Your task to perform on an android device: Search for pizza restaurants on Maps Image 0: 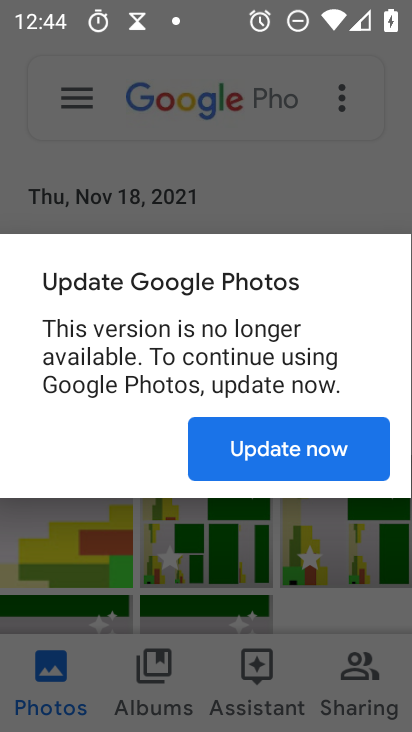
Step 0: press home button
Your task to perform on an android device: Search for pizza restaurants on Maps Image 1: 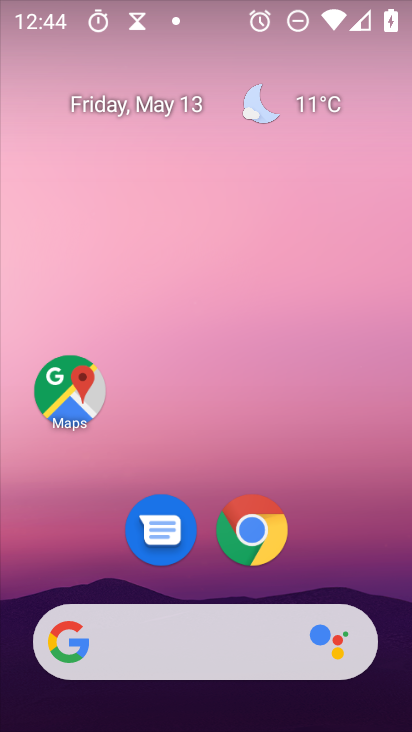
Step 1: click (81, 389)
Your task to perform on an android device: Search for pizza restaurants on Maps Image 2: 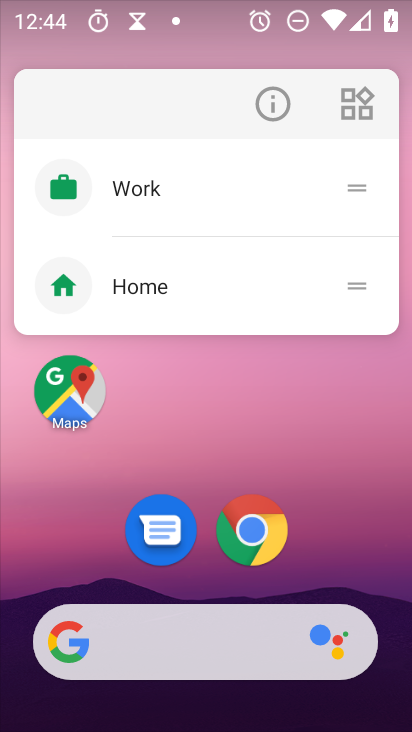
Step 2: click (70, 399)
Your task to perform on an android device: Search for pizza restaurants on Maps Image 3: 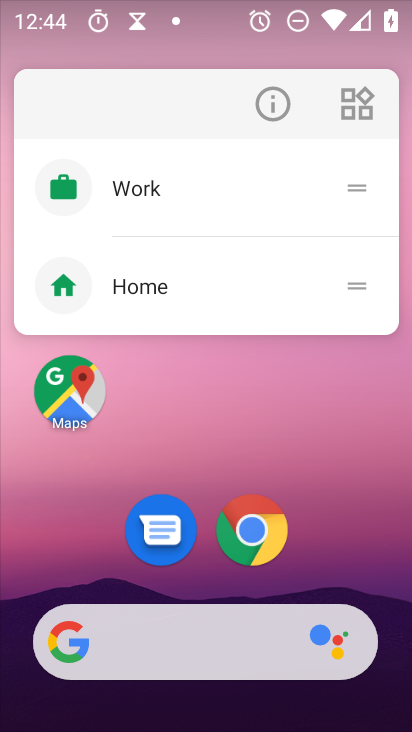
Step 3: click (64, 406)
Your task to perform on an android device: Search for pizza restaurants on Maps Image 4: 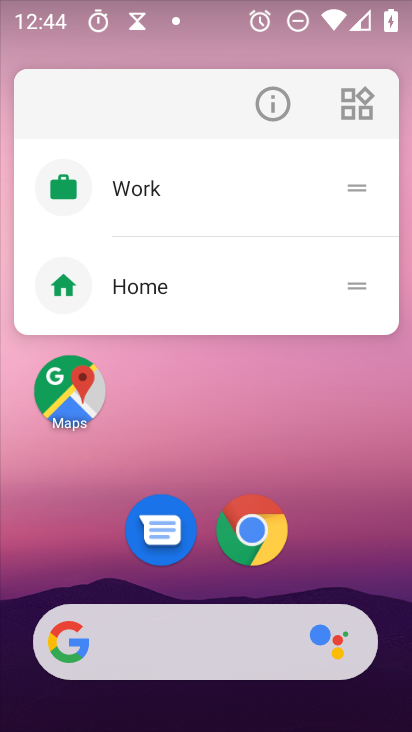
Step 4: click (64, 406)
Your task to perform on an android device: Search for pizza restaurants on Maps Image 5: 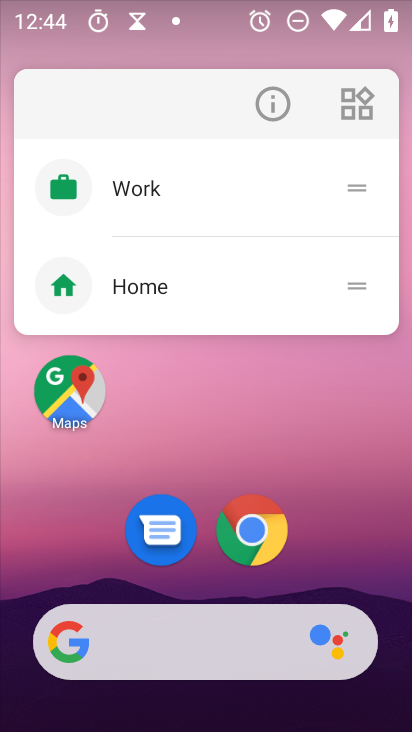
Step 5: click (68, 394)
Your task to perform on an android device: Search for pizza restaurants on Maps Image 6: 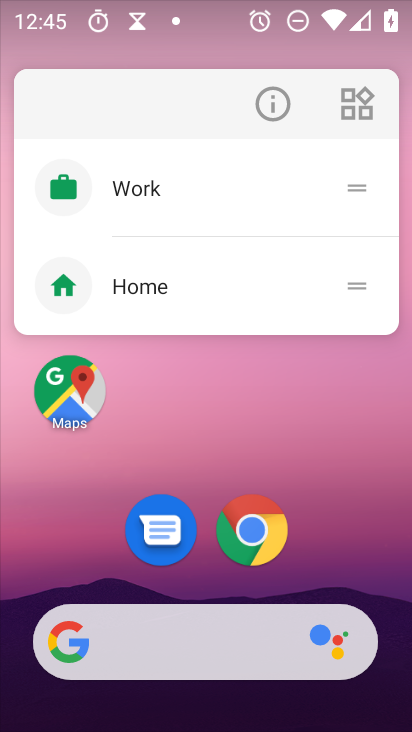
Step 6: click (70, 409)
Your task to perform on an android device: Search for pizza restaurants on Maps Image 7: 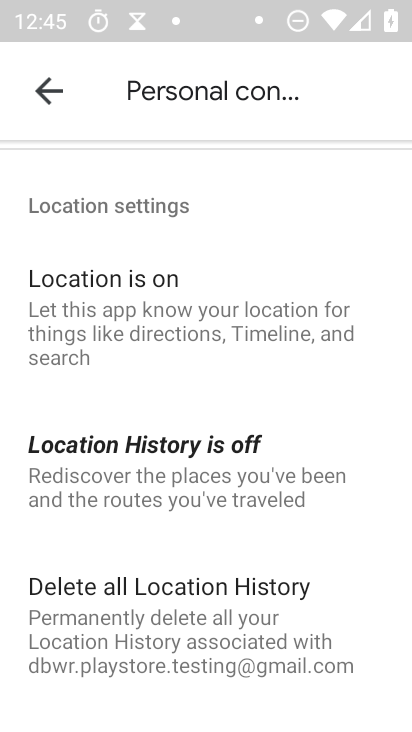
Step 7: click (42, 92)
Your task to perform on an android device: Search for pizza restaurants on Maps Image 8: 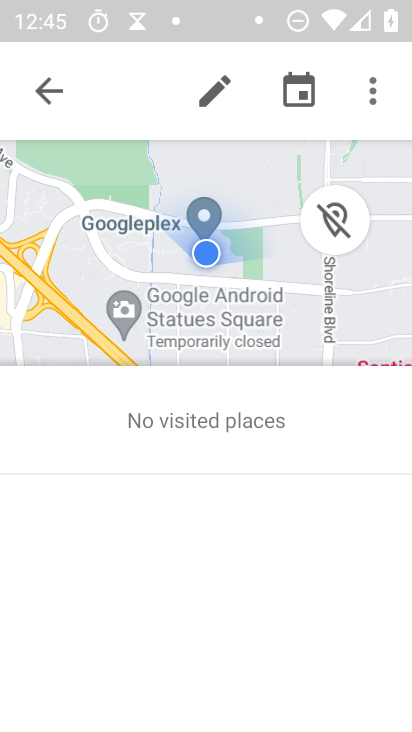
Step 8: click (42, 92)
Your task to perform on an android device: Search for pizza restaurants on Maps Image 9: 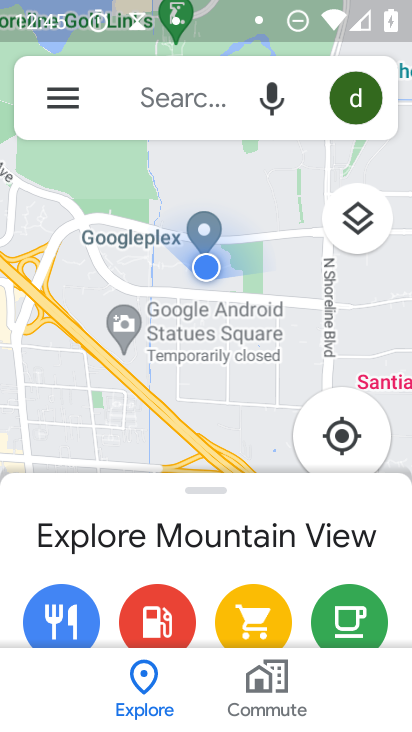
Step 9: click (201, 99)
Your task to perform on an android device: Search for pizza restaurants on Maps Image 10: 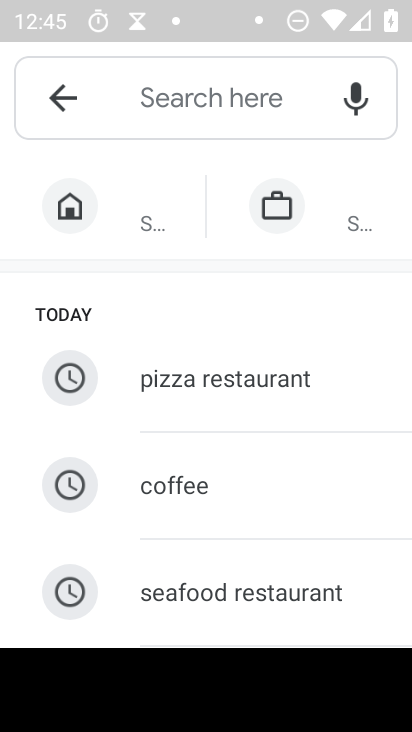
Step 10: click (203, 386)
Your task to perform on an android device: Search for pizza restaurants on Maps Image 11: 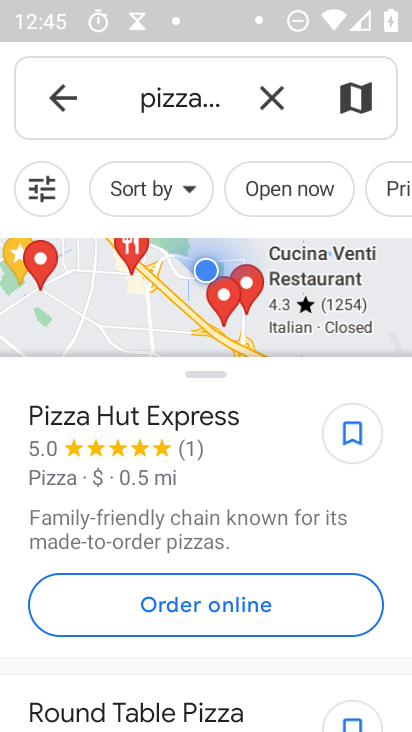
Step 11: task complete